Your task to perform on an android device: Go to display settings Image 0: 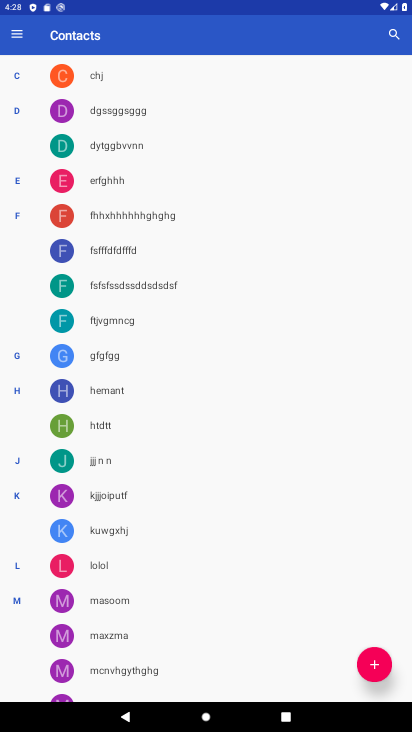
Step 0: press home button
Your task to perform on an android device: Go to display settings Image 1: 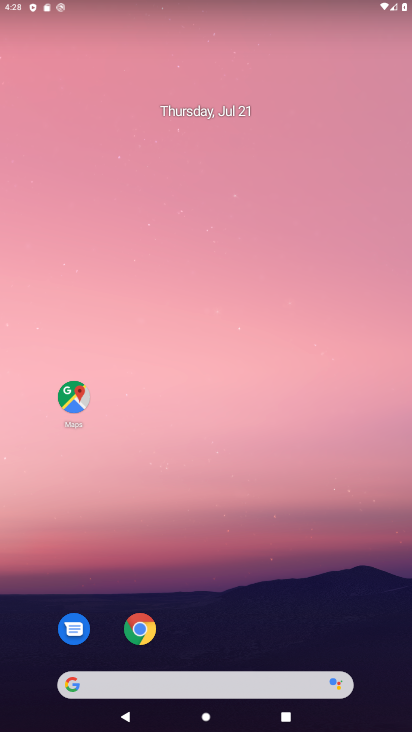
Step 1: drag from (222, 648) to (231, 77)
Your task to perform on an android device: Go to display settings Image 2: 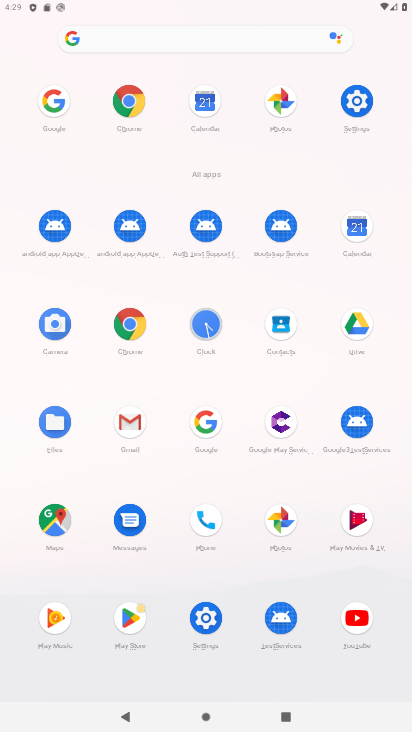
Step 2: click (358, 96)
Your task to perform on an android device: Go to display settings Image 3: 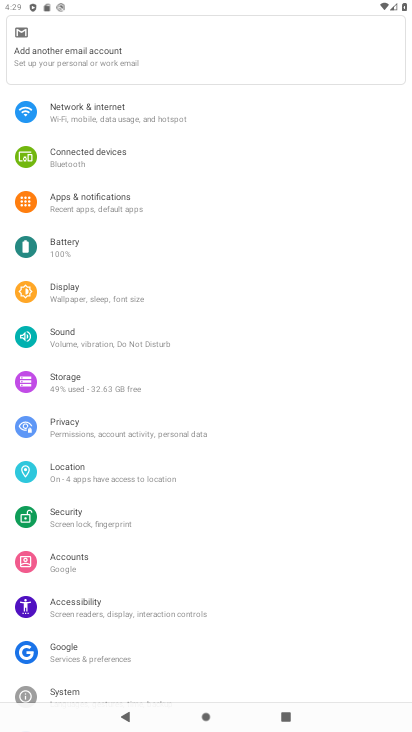
Step 3: click (95, 290)
Your task to perform on an android device: Go to display settings Image 4: 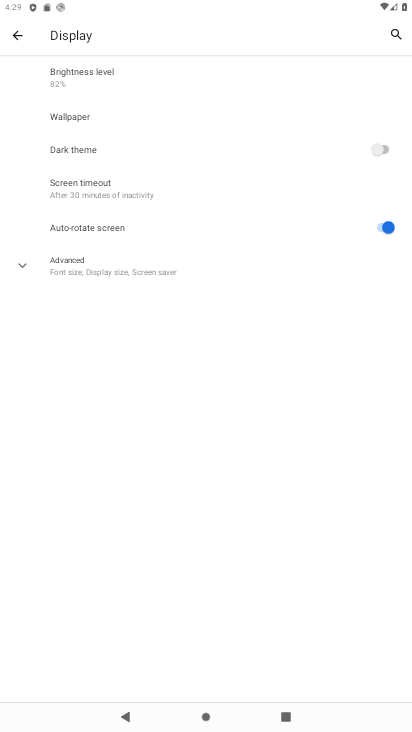
Step 4: click (41, 266)
Your task to perform on an android device: Go to display settings Image 5: 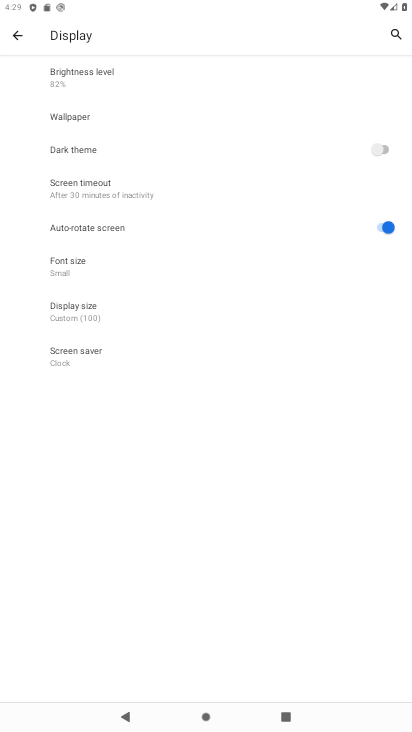
Step 5: task complete